Your task to perform on an android device: toggle airplane mode Image 0: 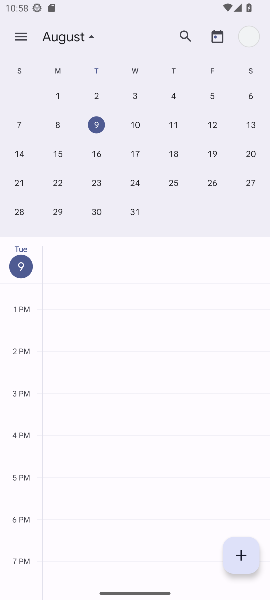
Step 0: press home button
Your task to perform on an android device: toggle airplane mode Image 1: 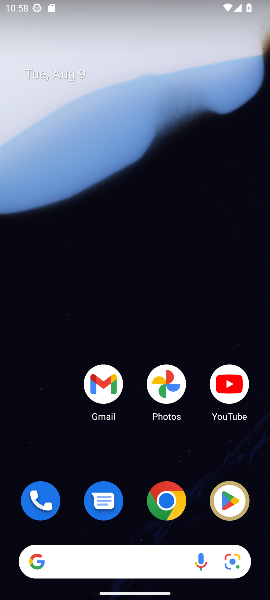
Step 1: drag from (201, 60) to (209, 26)
Your task to perform on an android device: toggle airplane mode Image 2: 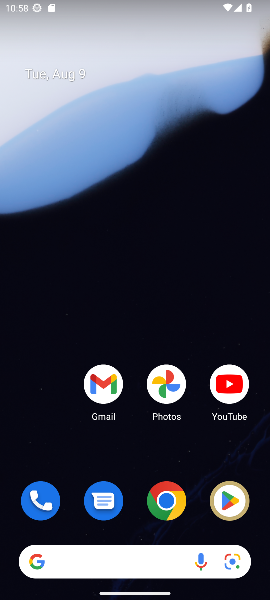
Step 2: drag from (128, 469) to (140, 149)
Your task to perform on an android device: toggle airplane mode Image 3: 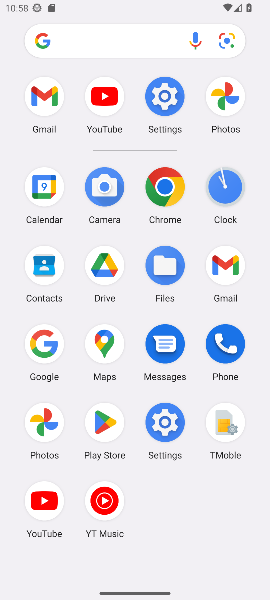
Step 3: click (165, 103)
Your task to perform on an android device: toggle airplane mode Image 4: 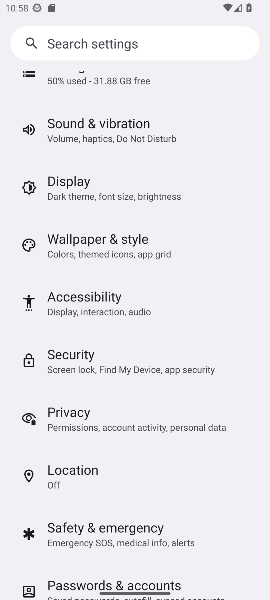
Step 4: drag from (133, 114) to (57, 514)
Your task to perform on an android device: toggle airplane mode Image 5: 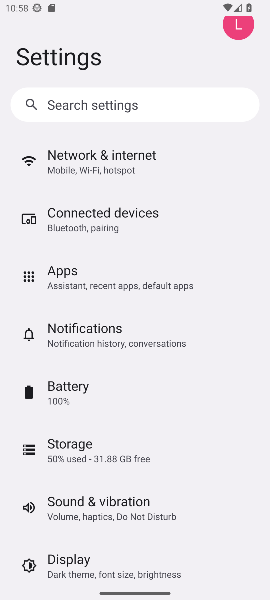
Step 5: click (138, 161)
Your task to perform on an android device: toggle airplane mode Image 6: 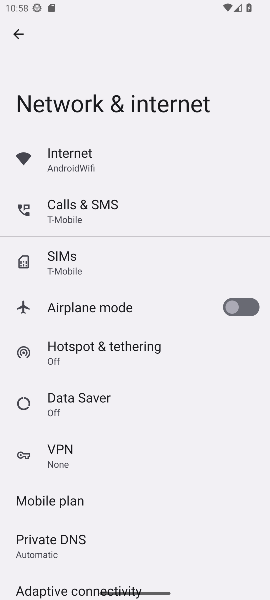
Step 6: click (258, 307)
Your task to perform on an android device: toggle airplane mode Image 7: 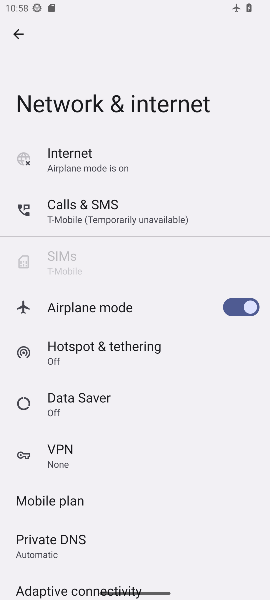
Step 7: task complete